Your task to perform on an android device: uninstall "McDonald's" Image 0: 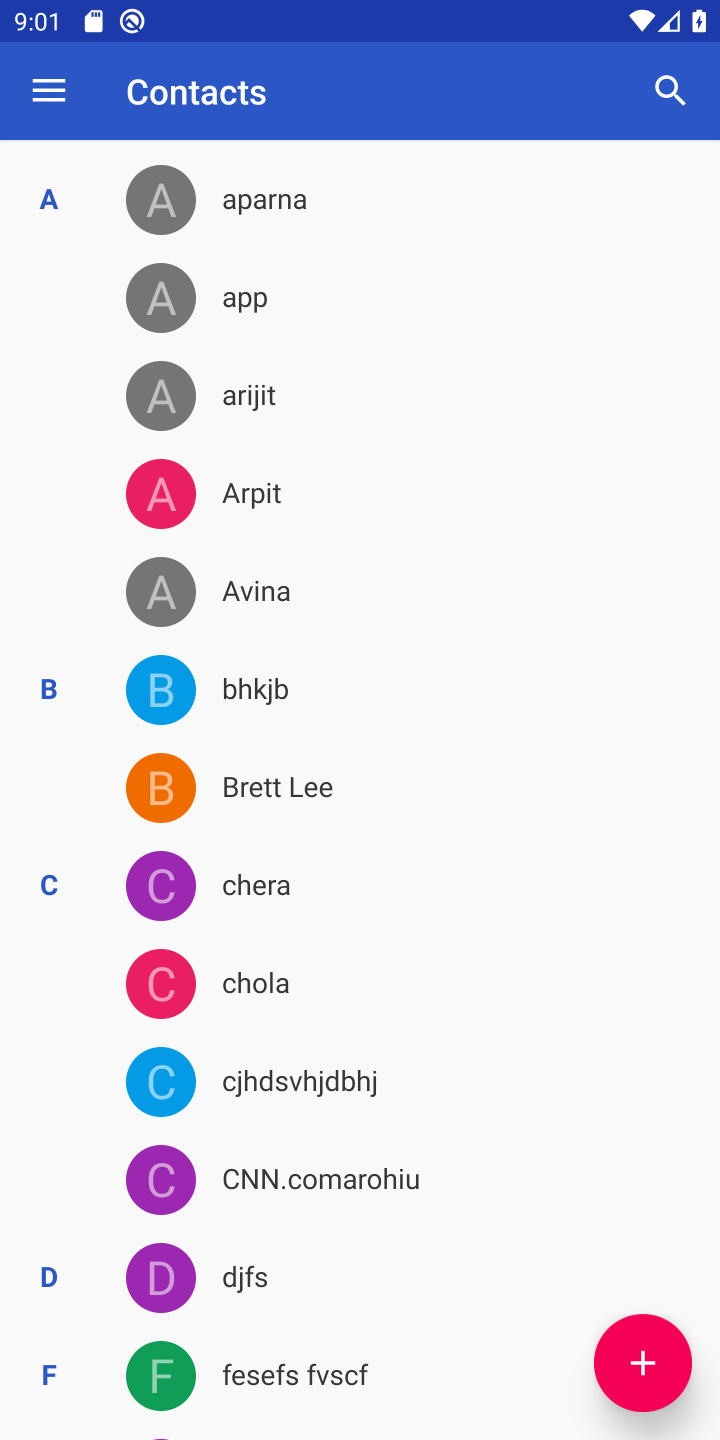
Step 0: press home button
Your task to perform on an android device: uninstall "McDonald's" Image 1: 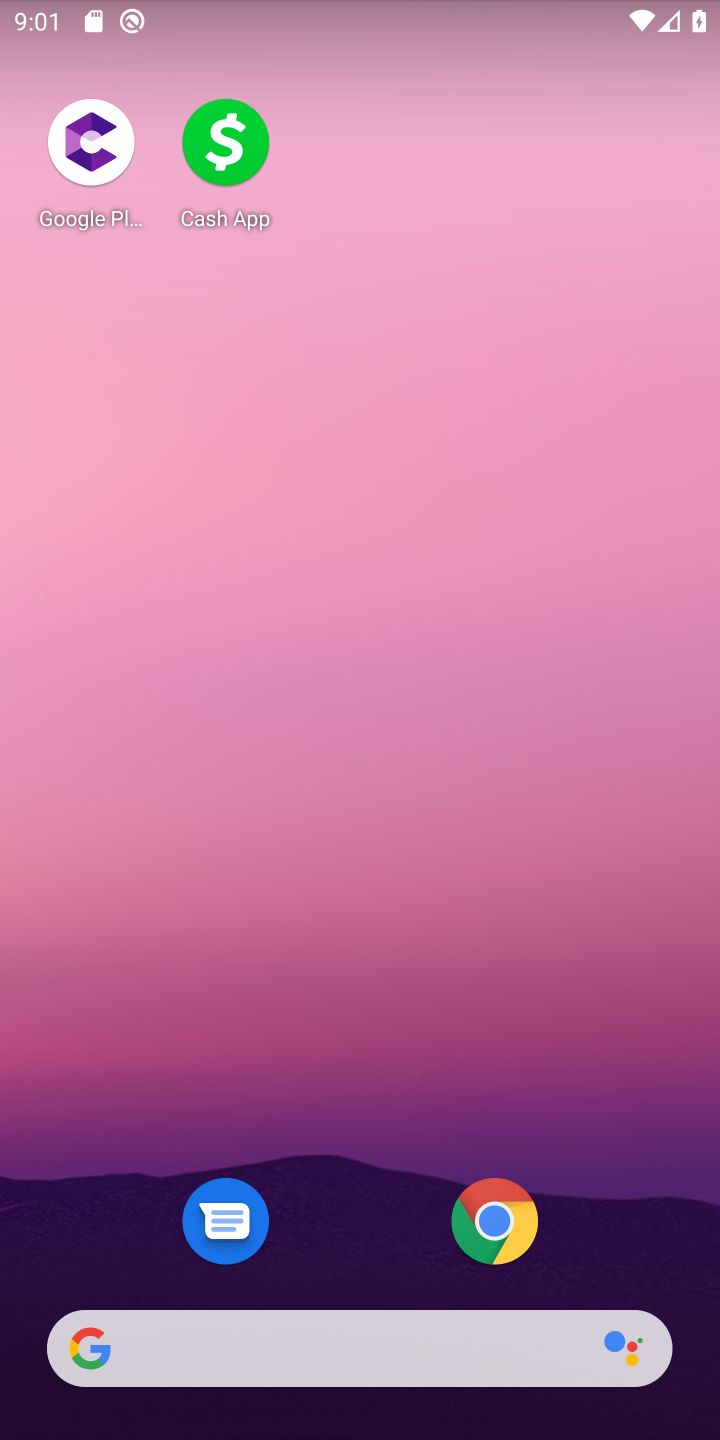
Step 1: drag from (422, 906) to (525, 153)
Your task to perform on an android device: uninstall "McDonald's" Image 2: 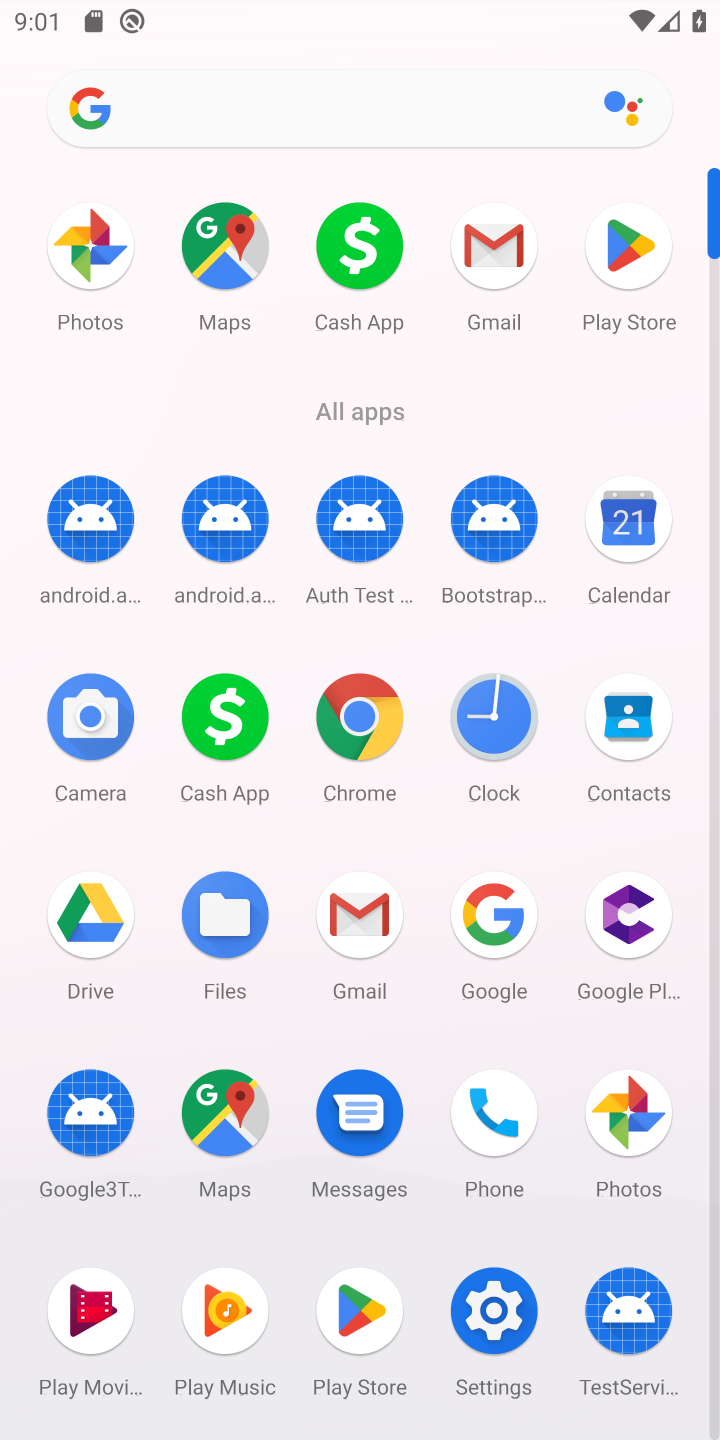
Step 2: click (602, 275)
Your task to perform on an android device: uninstall "McDonald's" Image 3: 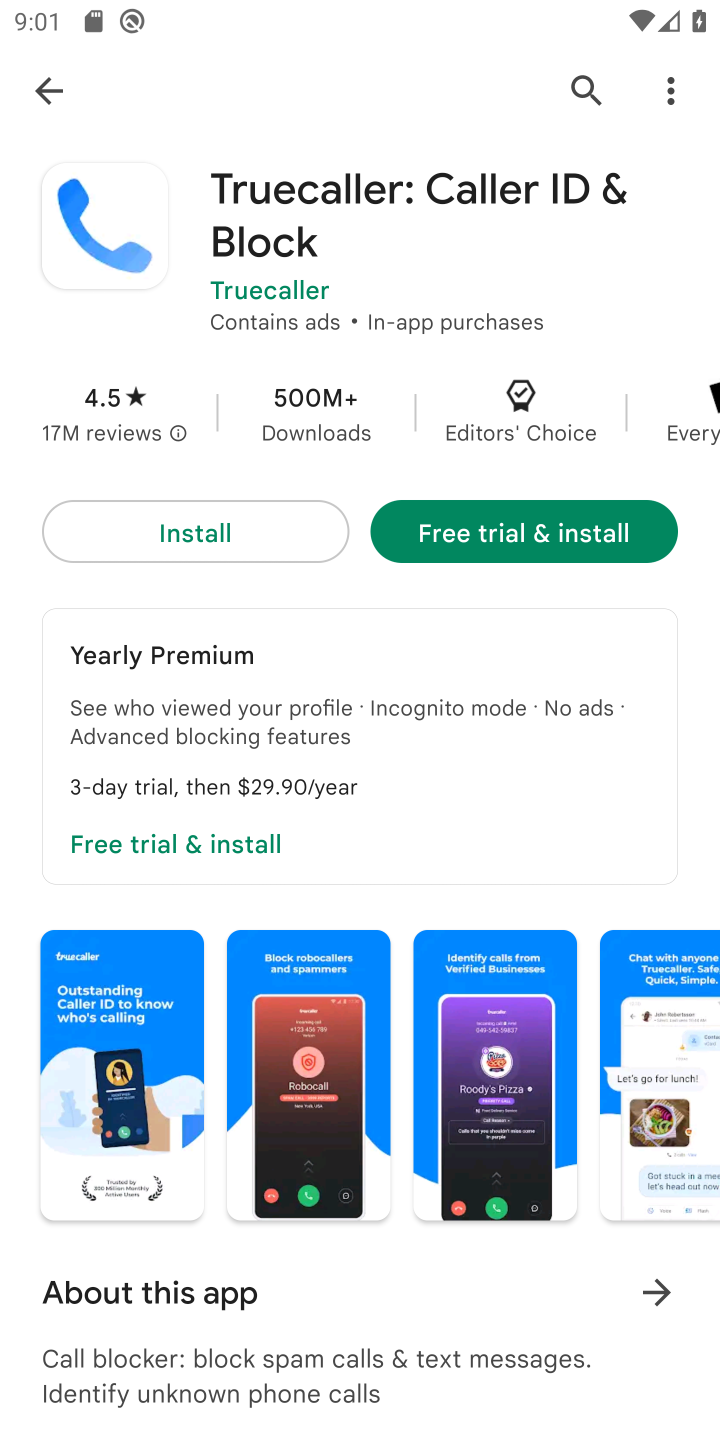
Step 3: click (560, 87)
Your task to perform on an android device: uninstall "McDonald's" Image 4: 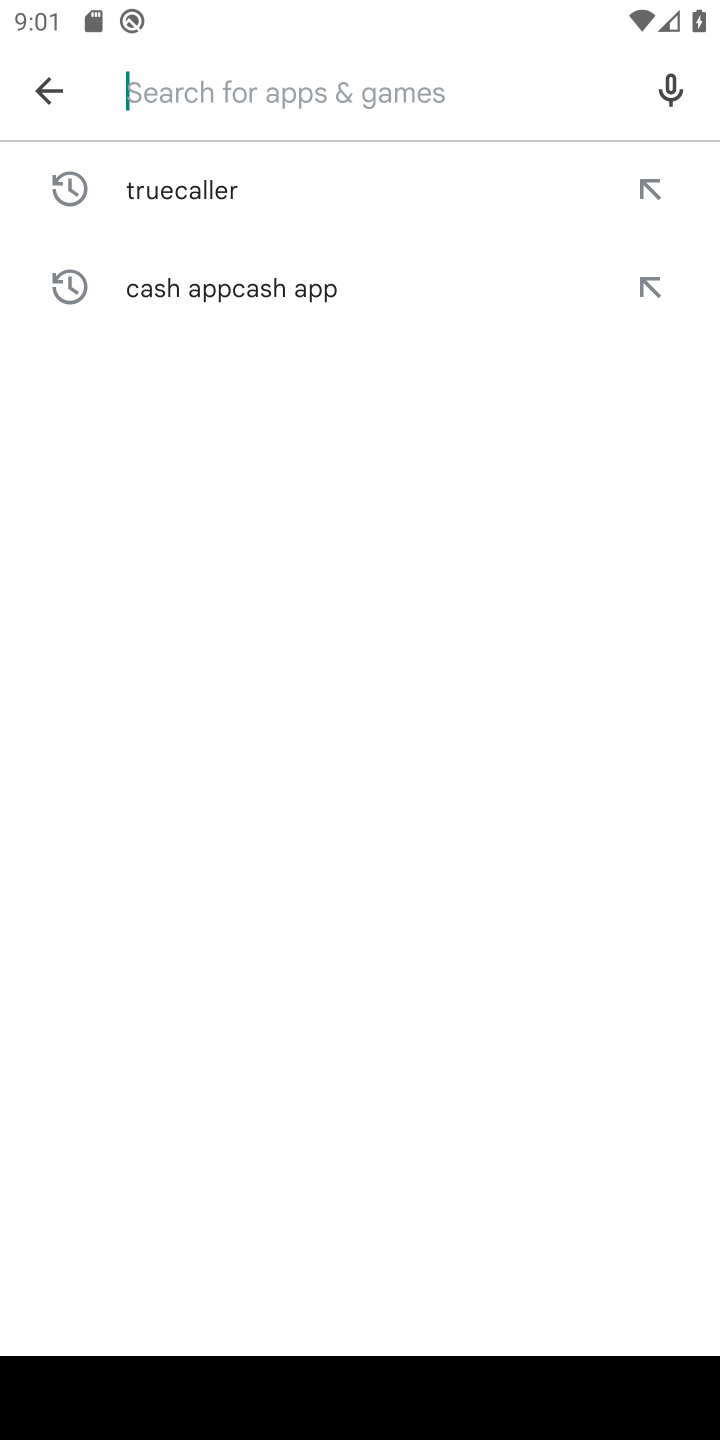
Step 4: type "McDonald's"
Your task to perform on an android device: uninstall "McDonald's" Image 5: 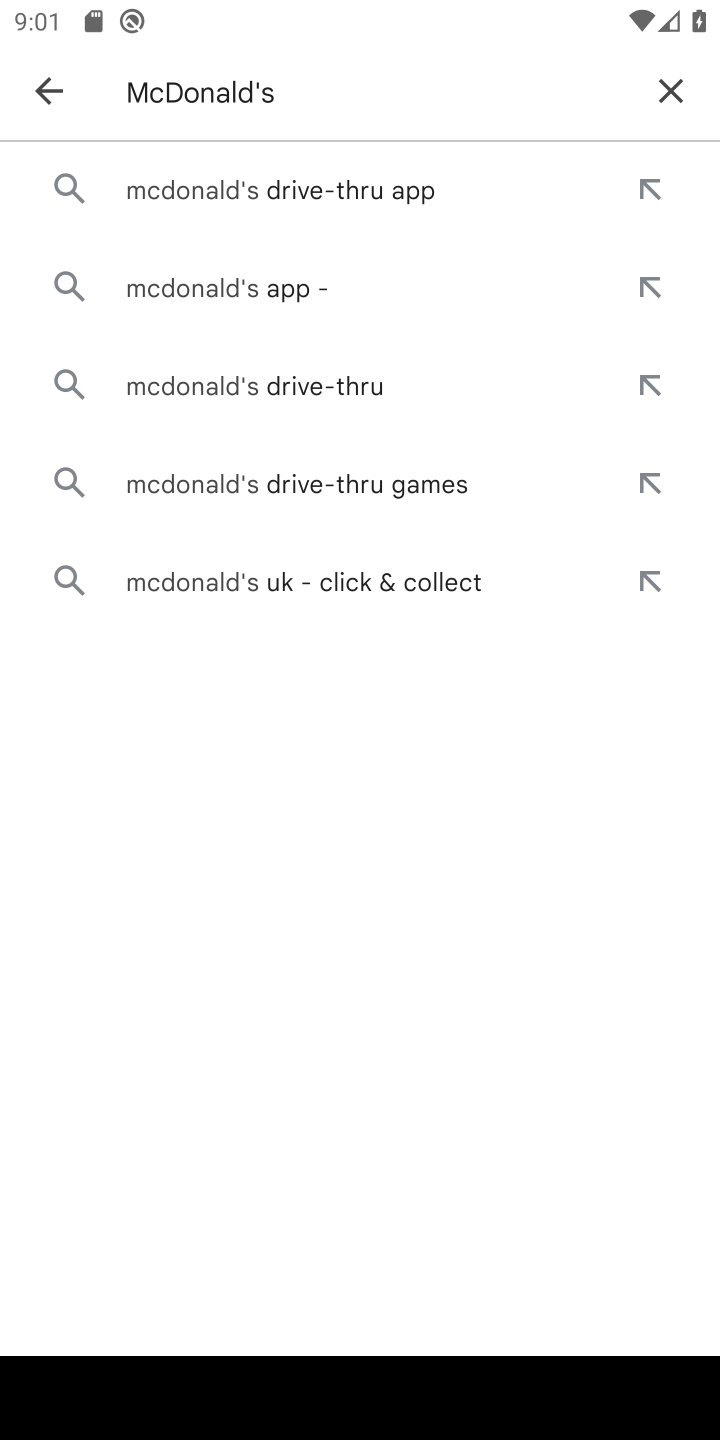
Step 5: click (432, 296)
Your task to perform on an android device: uninstall "McDonald's" Image 6: 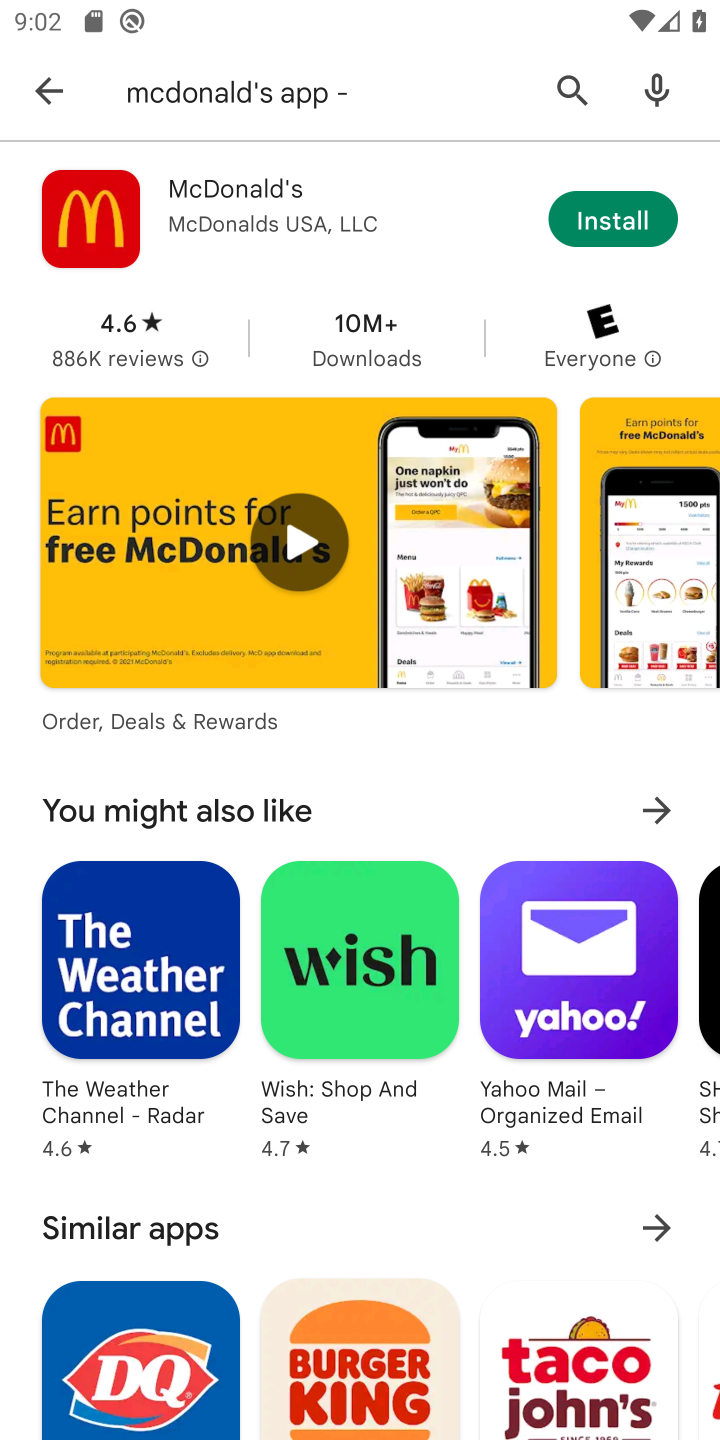
Step 6: click (262, 231)
Your task to perform on an android device: uninstall "McDonald's" Image 7: 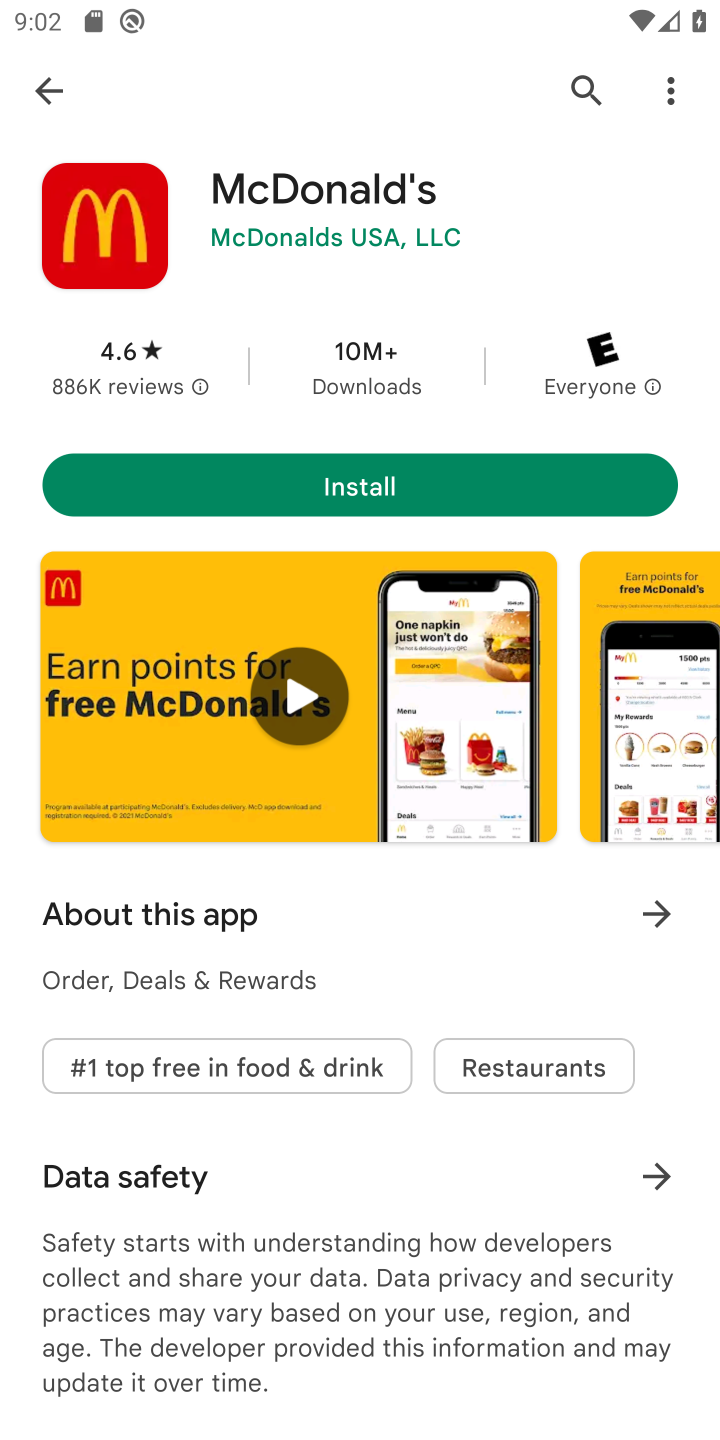
Step 7: task complete